Your task to perform on an android device: Open a new incognito tab in the chrome app Image 0: 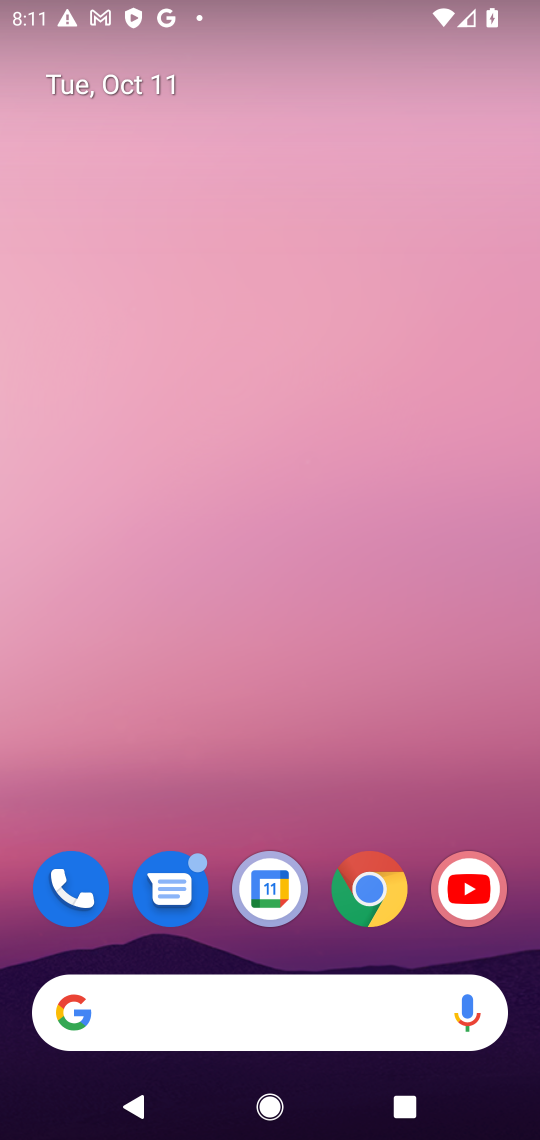
Step 0: click (372, 898)
Your task to perform on an android device: Open a new incognito tab in the chrome app Image 1: 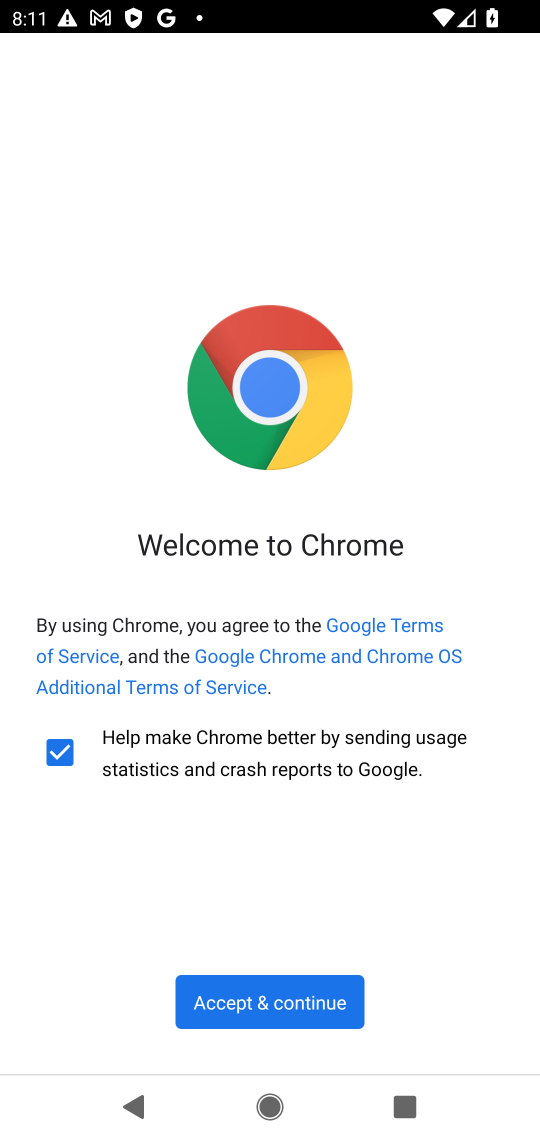
Step 1: click (275, 1014)
Your task to perform on an android device: Open a new incognito tab in the chrome app Image 2: 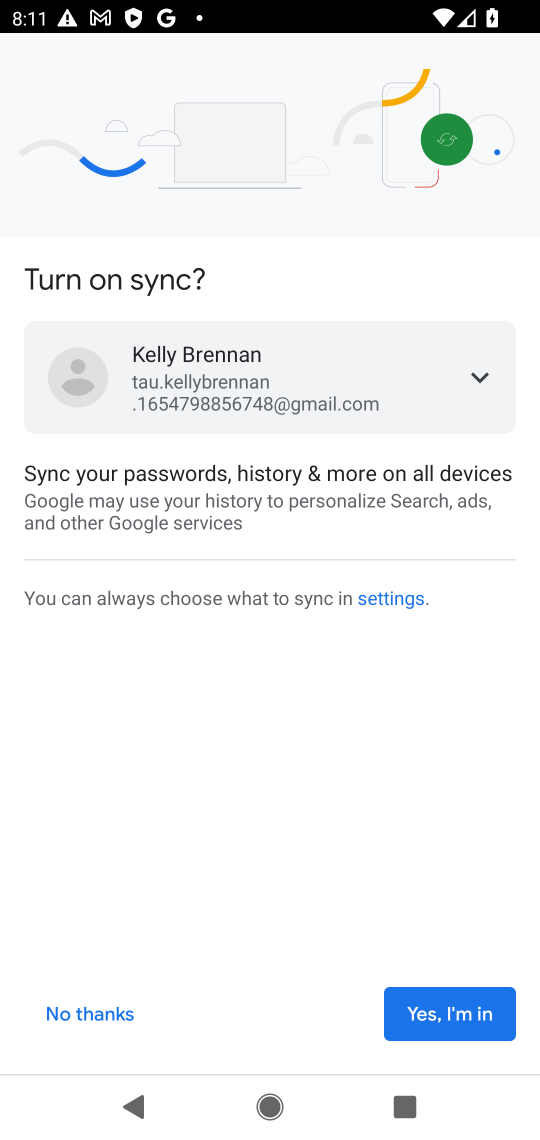
Step 2: click (450, 1026)
Your task to perform on an android device: Open a new incognito tab in the chrome app Image 3: 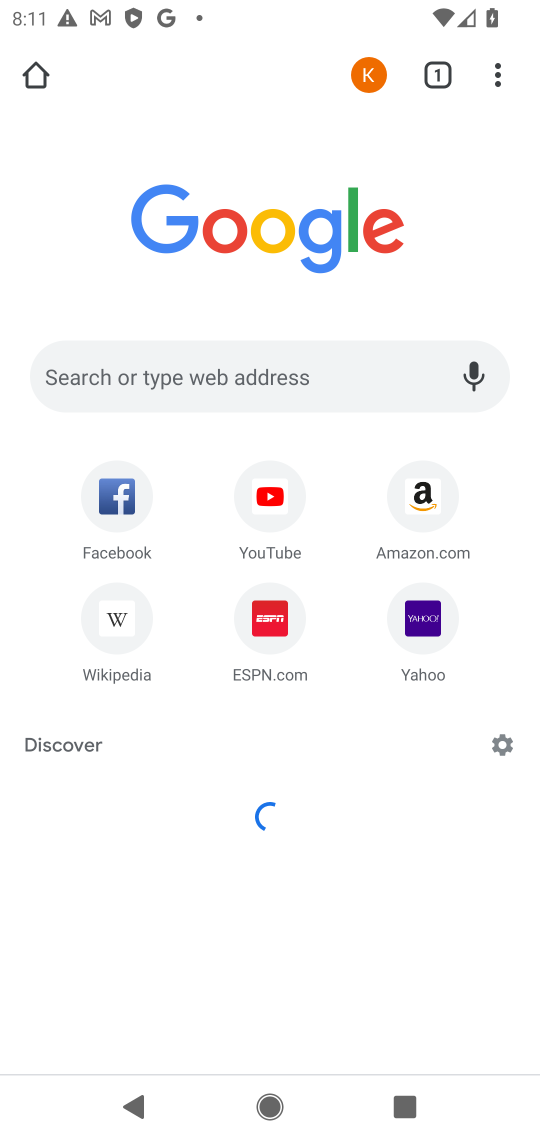
Step 3: task complete